Your task to perform on an android device: turn off data saver in the chrome app Image 0: 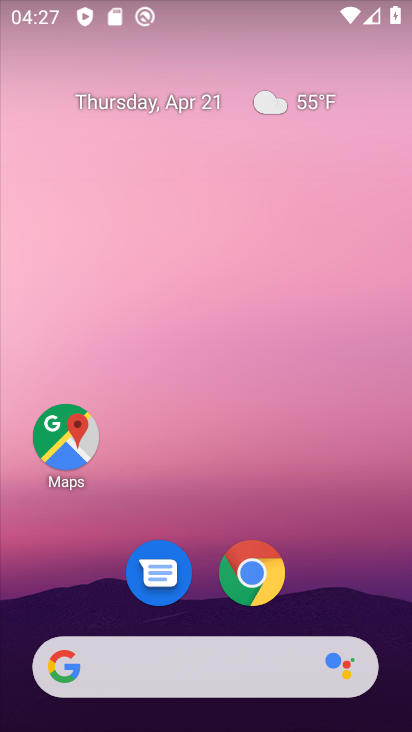
Step 0: click (260, 576)
Your task to perform on an android device: turn off data saver in the chrome app Image 1: 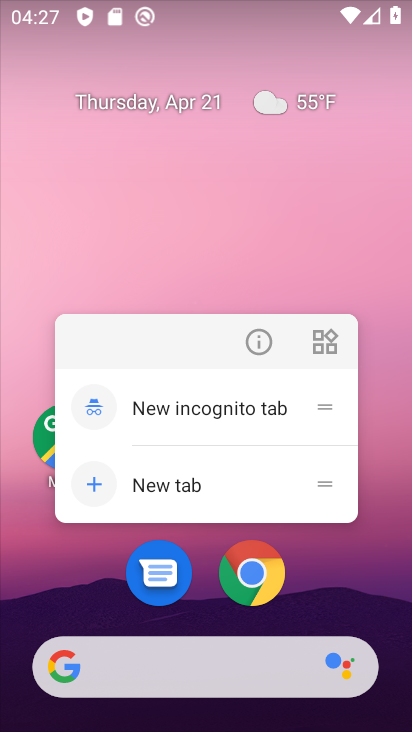
Step 1: click (260, 576)
Your task to perform on an android device: turn off data saver in the chrome app Image 2: 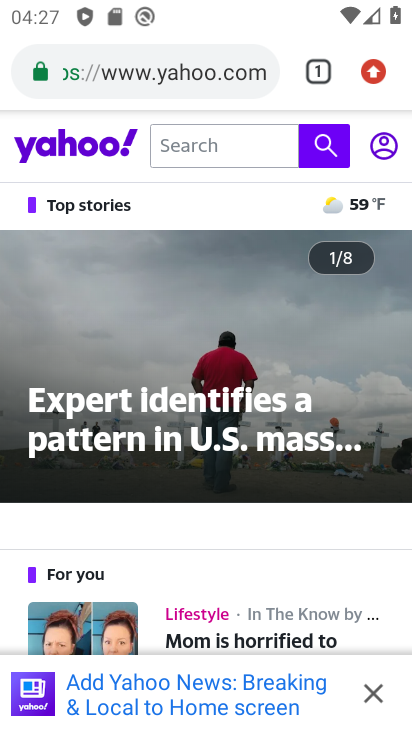
Step 2: drag from (369, 74) to (177, 576)
Your task to perform on an android device: turn off data saver in the chrome app Image 3: 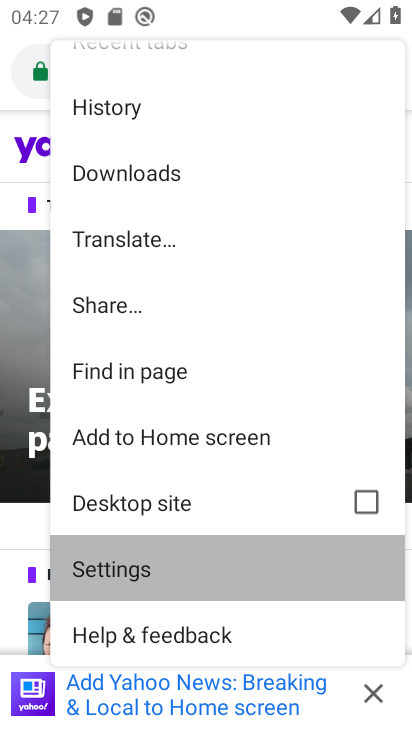
Step 3: click (177, 576)
Your task to perform on an android device: turn off data saver in the chrome app Image 4: 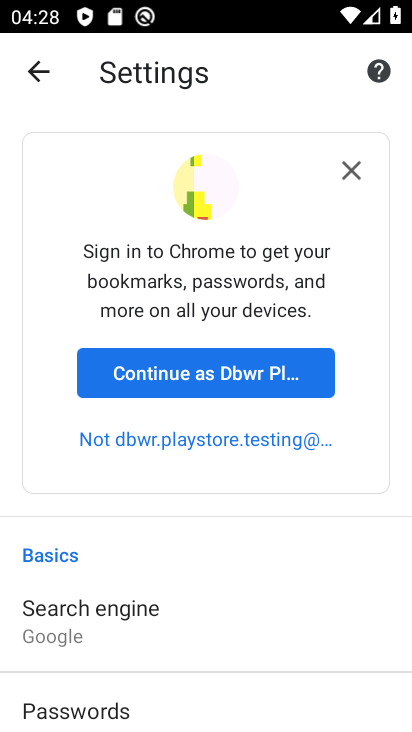
Step 4: drag from (222, 691) to (192, 113)
Your task to perform on an android device: turn off data saver in the chrome app Image 5: 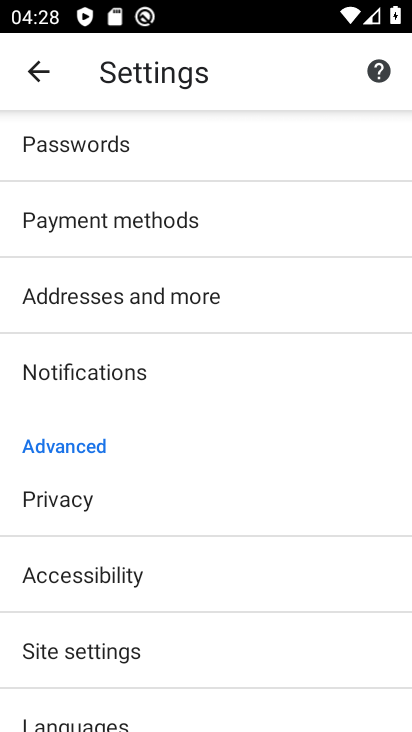
Step 5: drag from (248, 584) to (260, 87)
Your task to perform on an android device: turn off data saver in the chrome app Image 6: 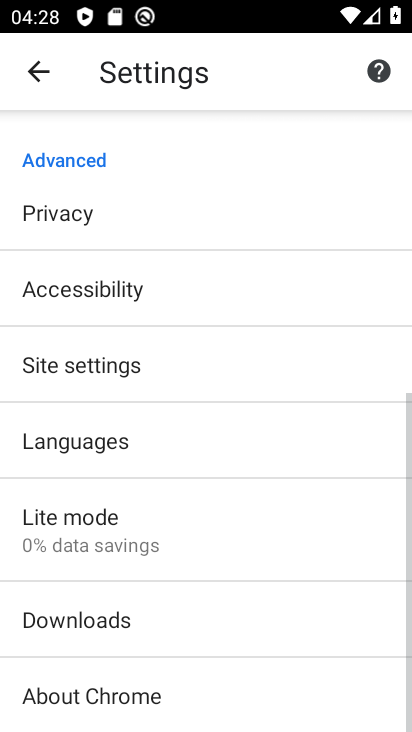
Step 6: click (139, 517)
Your task to perform on an android device: turn off data saver in the chrome app Image 7: 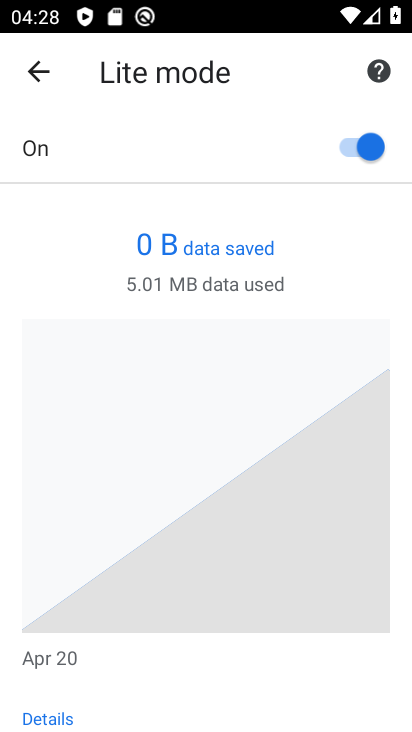
Step 7: click (345, 147)
Your task to perform on an android device: turn off data saver in the chrome app Image 8: 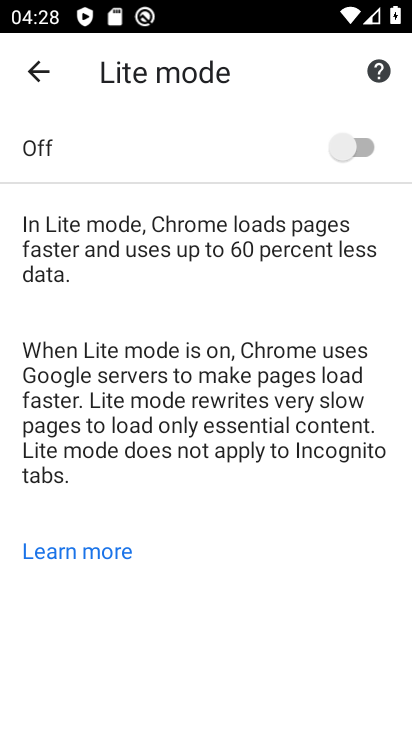
Step 8: task complete